Your task to perform on an android device: Go to wifi settings Image 0: 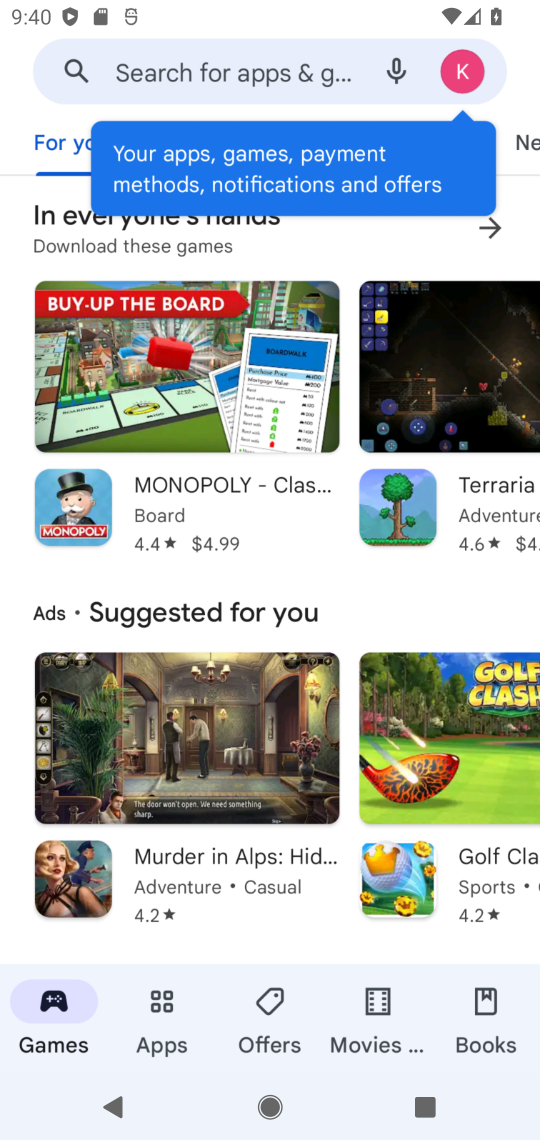
Step 0: press home button
Your task to perform on an android device: Go to wifi settings Image 1: 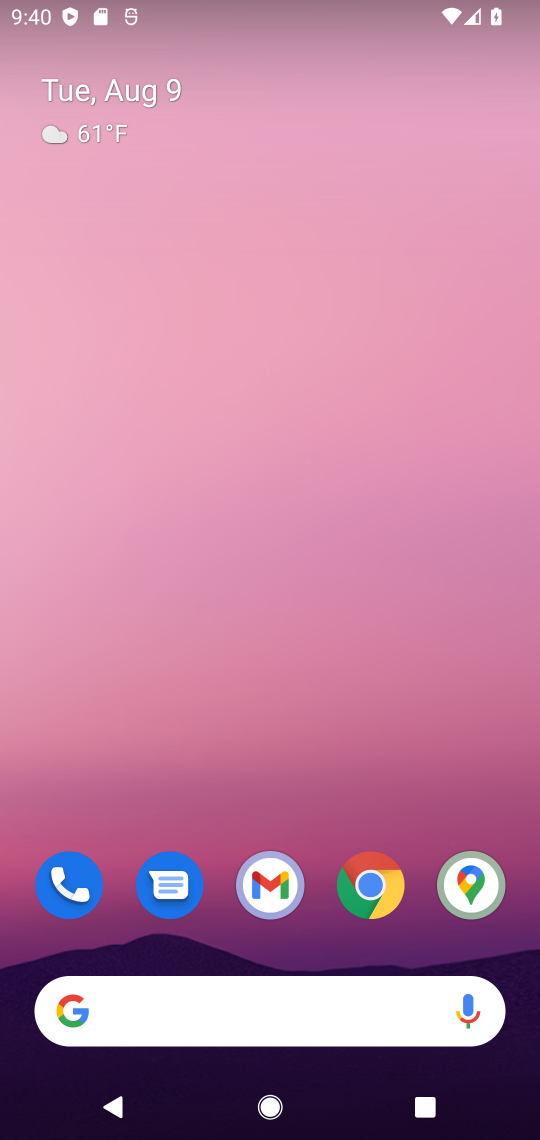
Step 1: drag from (315, 937) to (347, 90)
Your task to perform on an android device: Go to wifi settings Image 2: 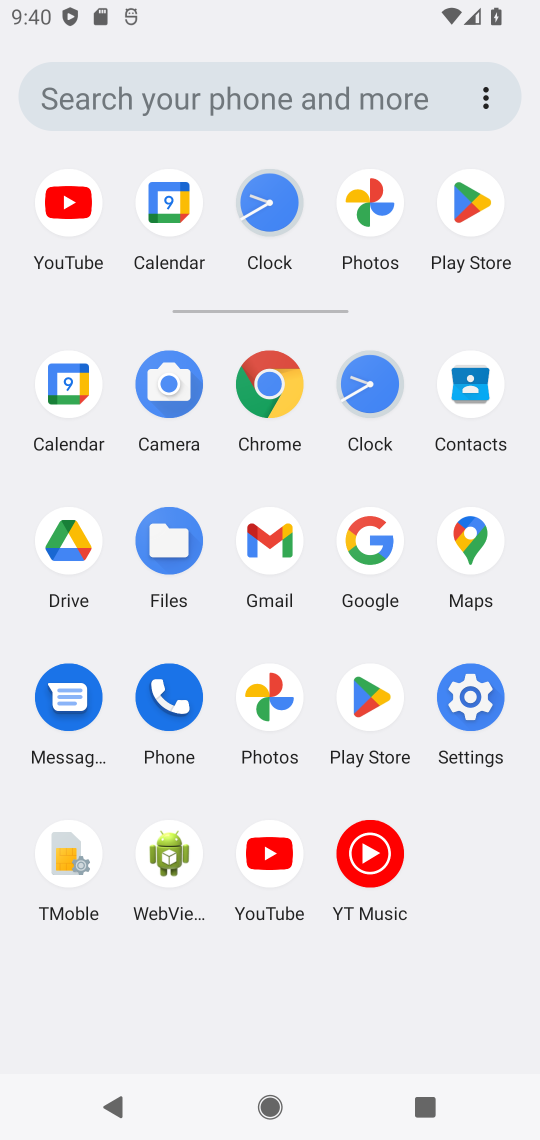
Step 2: click (466, 690)
Your task to perform on an android device: Go to wifi settings Image 3: 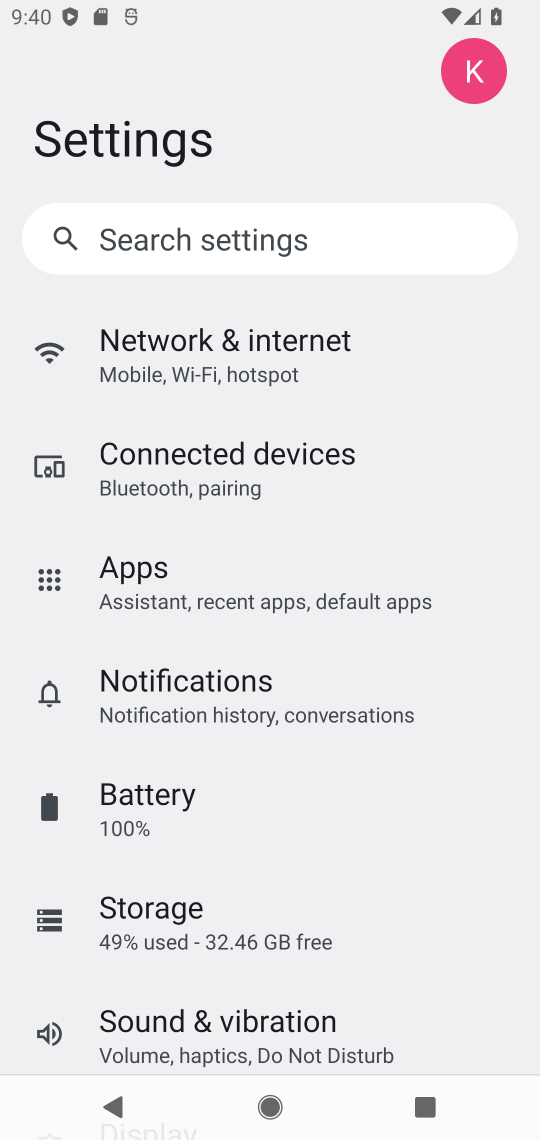
Step 3: click (319, 356)
Your task to perform on an android device: Go to wifi settings Image 4: 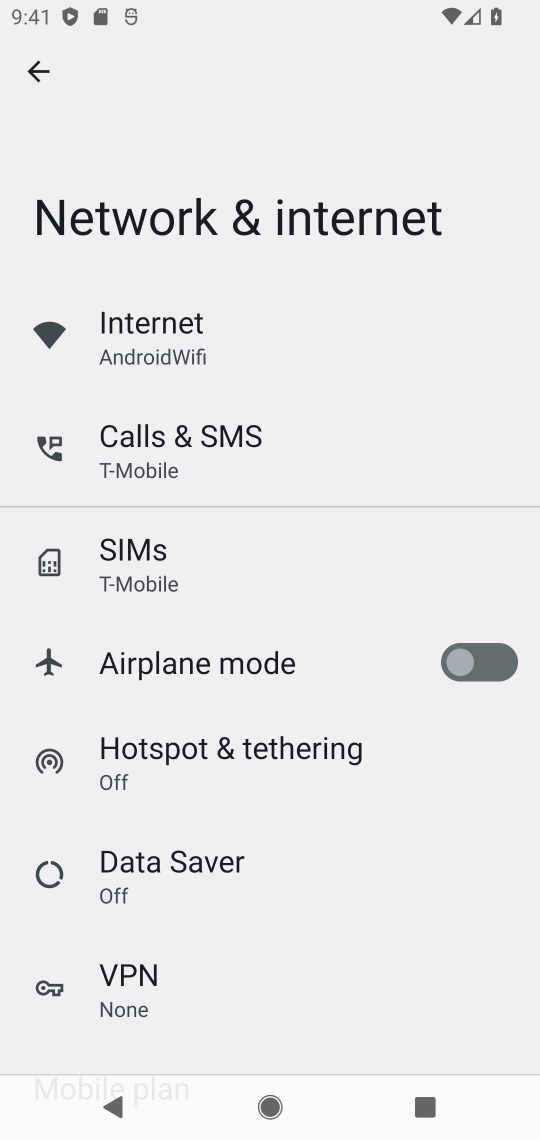
Step 4: task complete